Your task to perform on an android device: change the clock display to show seconds Image 0: 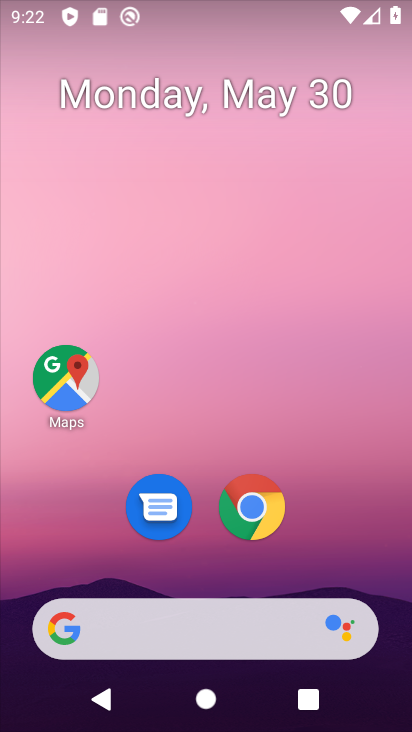
Step 0: drag from (278, 484) to (378, 158)
Your task to perform on an android device: change the clock display to show seconds Image 1: 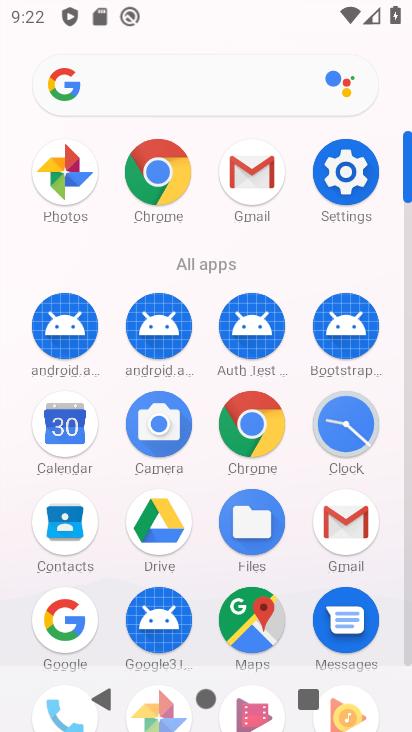
Step 1: click (358, 182)
Your task to perform on an android device: change the clock display to show seconds Image 2: 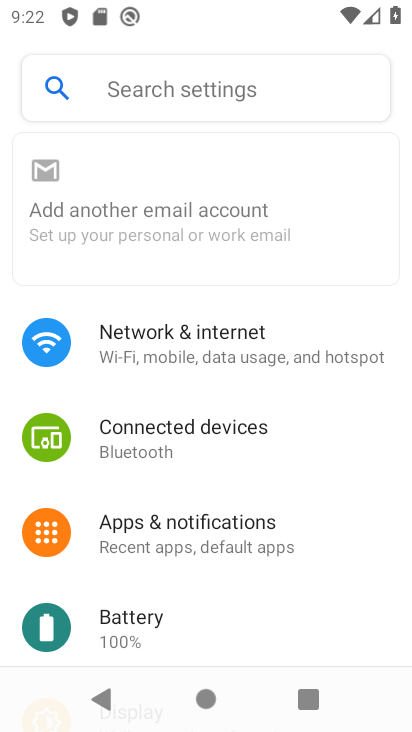
Step 2: press home button
Your task to perform on an android device: change the clock display to show seconds Image 3: 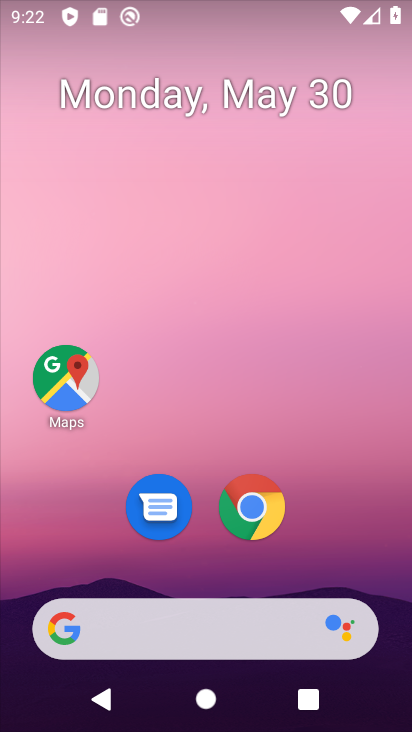
Step 3: drag from (250, 382) to (280, 275)
Your task to perform on an android device: change the clock display to show seconds Image 4: 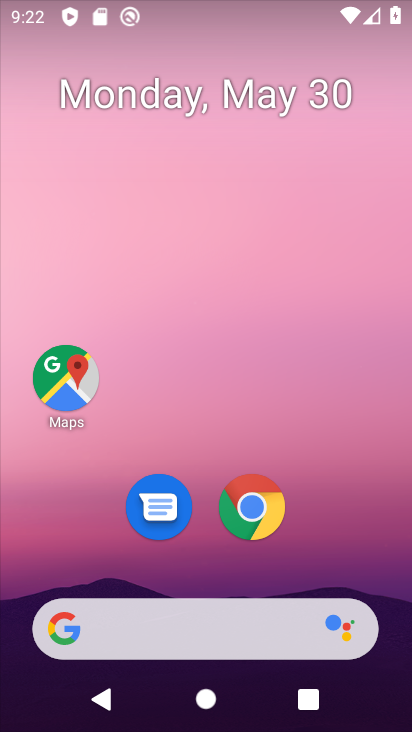
Step 4: drag from (287, 591) to (375, 218)
Your task to perform on an android device: change the clock display to show seconds Image 5: 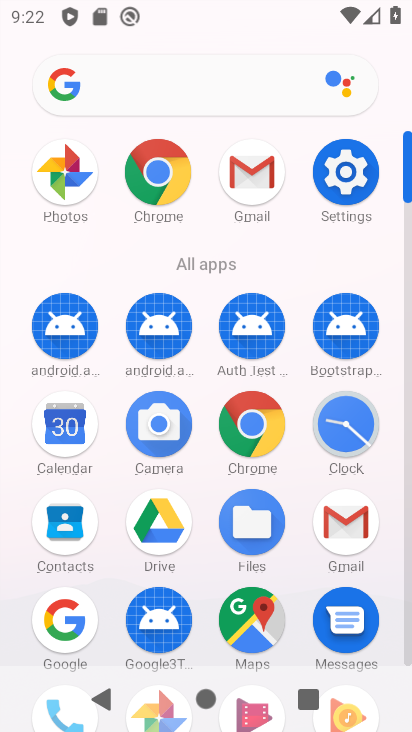
Step 5: click (330, 429)
Your task to perform on an android device: change the clock display to show seconds Image 6: 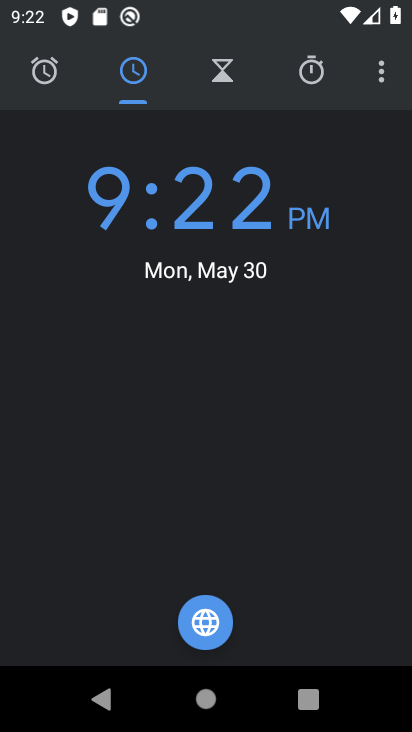
Step 6: click (386, 78)
Your task to perform on an android device: change the clock display to show seconds Image 7: 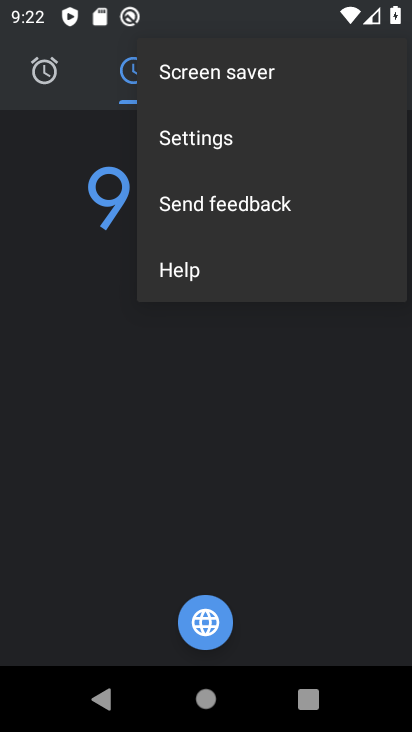
Step 7: click (187, 124)
Your task to perform on an android device: change the clock display to show seconds Image 8: 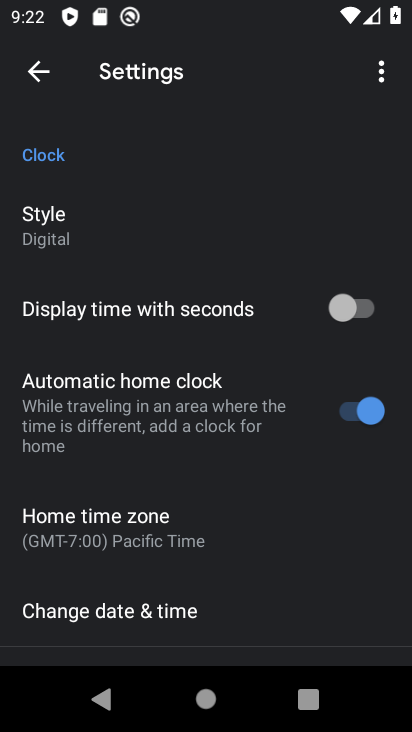
Step 8: click (365, 311)
Your task to perform on an android device: change the clock display to show seconds Image 9: 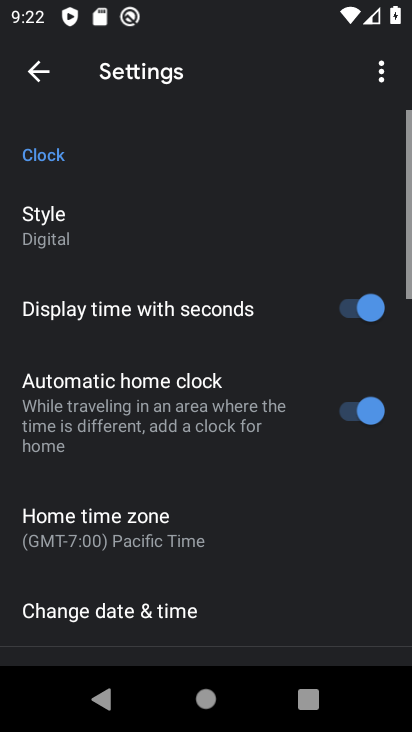
Step 9: task complete